Your task to perform on an android device: Open location settings Image 0: 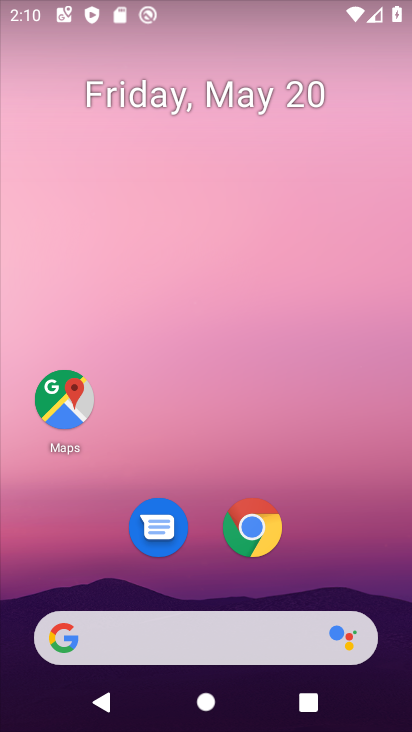
Step 0: drag from (237, 709) to (232, 279)
Your task to perform on an android device: Open location settings Image 1: 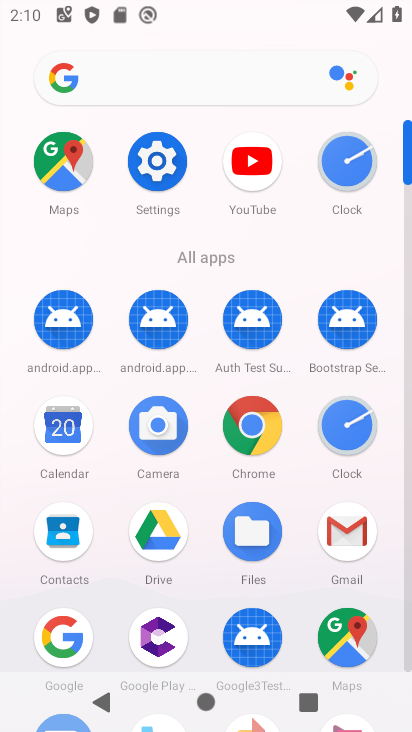
Step 1: click (167, 141)
Your task to perform on an android device: Open location settings Image 2: 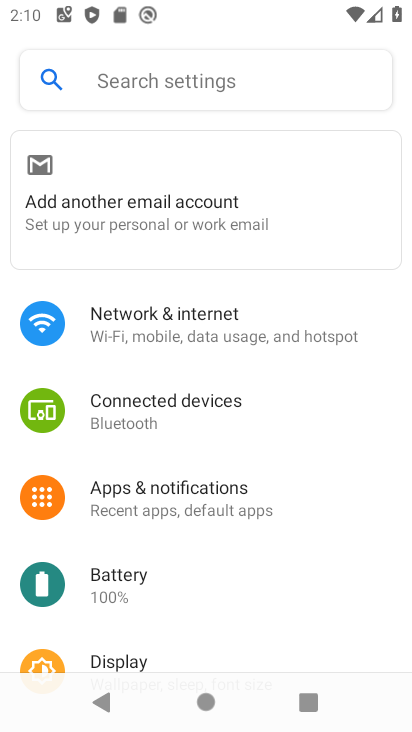
Step 2: drag from (205, 589) to (267, 182)
Your task to perform on an android device: Open location settings Image 3: 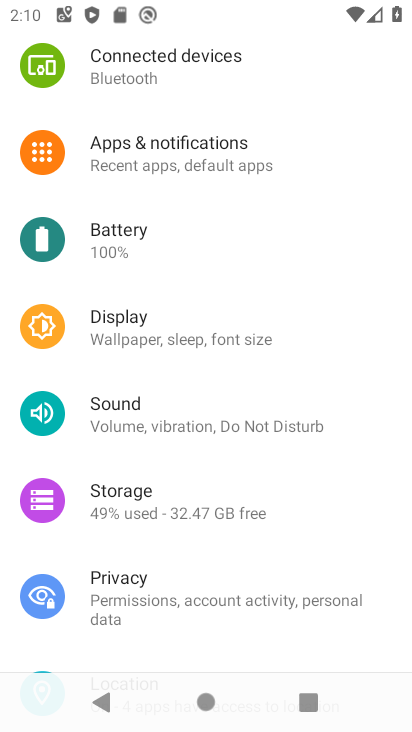
Step 3: drag from (216, 499) to (202, 169)
Your task to perform on an android device: Open location settings Image 4: 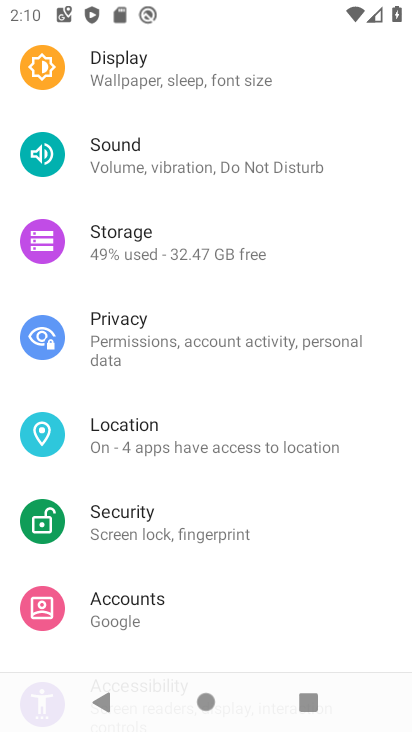
Step 4: click (181, 444)
Your task to perform on an android device: Open location settings Image 5: 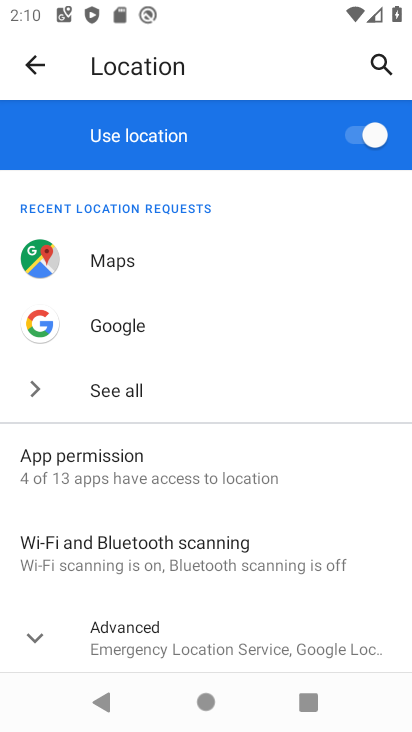
Step 5: task complete